Your task to perform on an android device: Do I have any events tomorrow? Image 0: 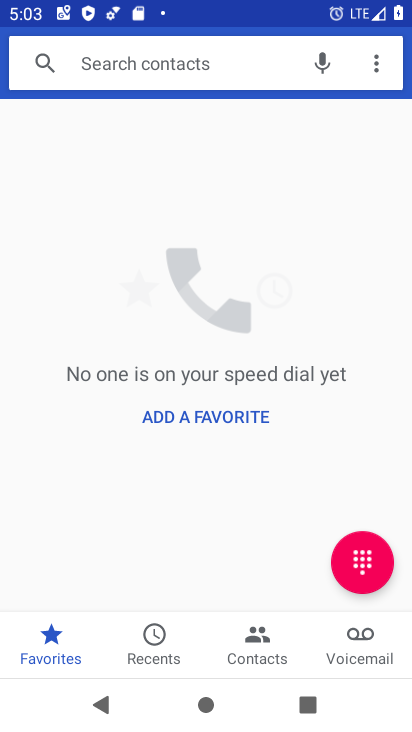
Step 0: press back button
Your task to perform on an android device: Do I have any events tomorrow? Image 1: 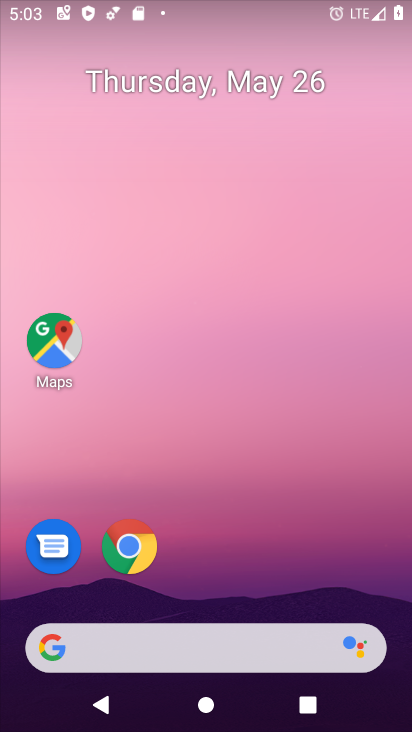
Step 1: drag from (207, 579) to (304, 45)
Your task to perform on an android device: Do I have any events tomorrow? Image 2: 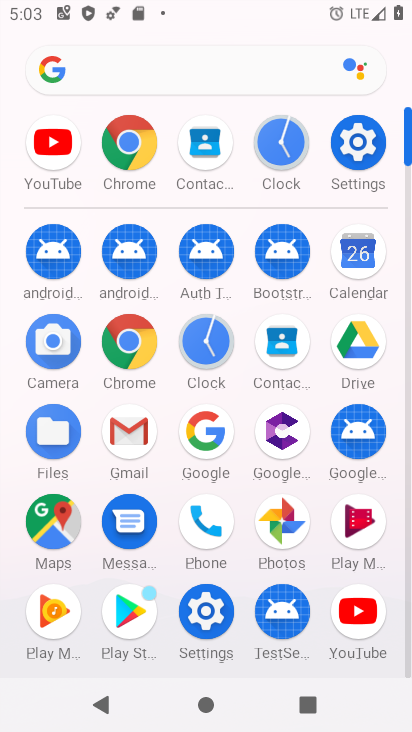
Step 2: click (362, 256)
Your task to perform on an android device: Do I have any events tomorrow? Image 3: 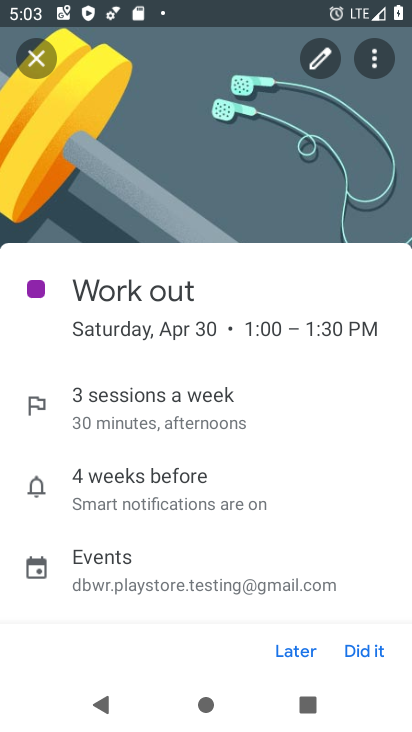
Step 3: click (298, 637)
Your task to perform on an android device: Do I have any events tomorrow? Image 4: 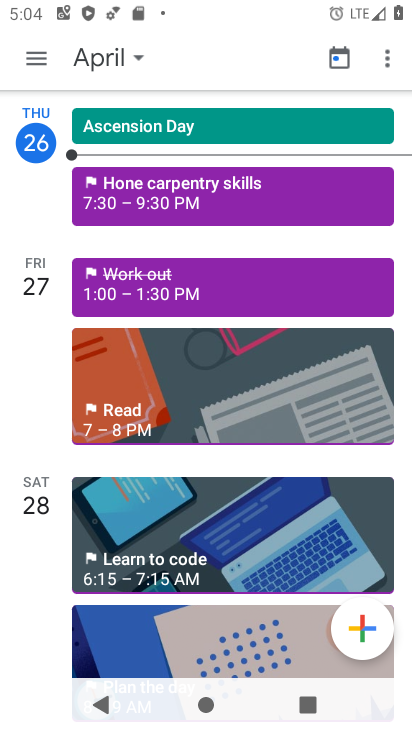
Step 4: click (159, 300)
Your task to perform on an android device: Do I have any events tomorrow? Image 5: 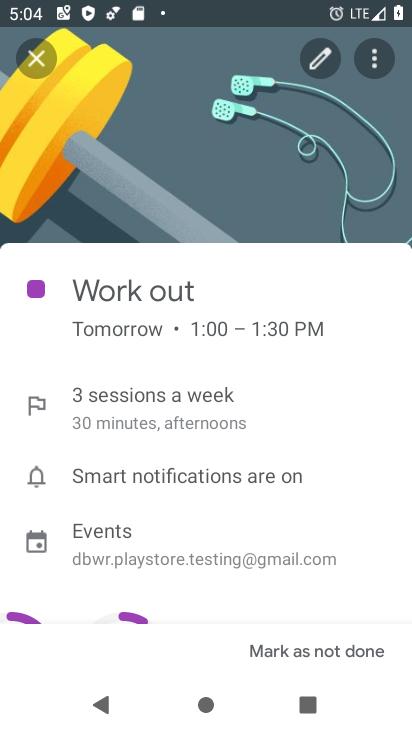
Step 5: task complete